Your task to perform on an android device: open app "Microsoft Outlook" Image 0: 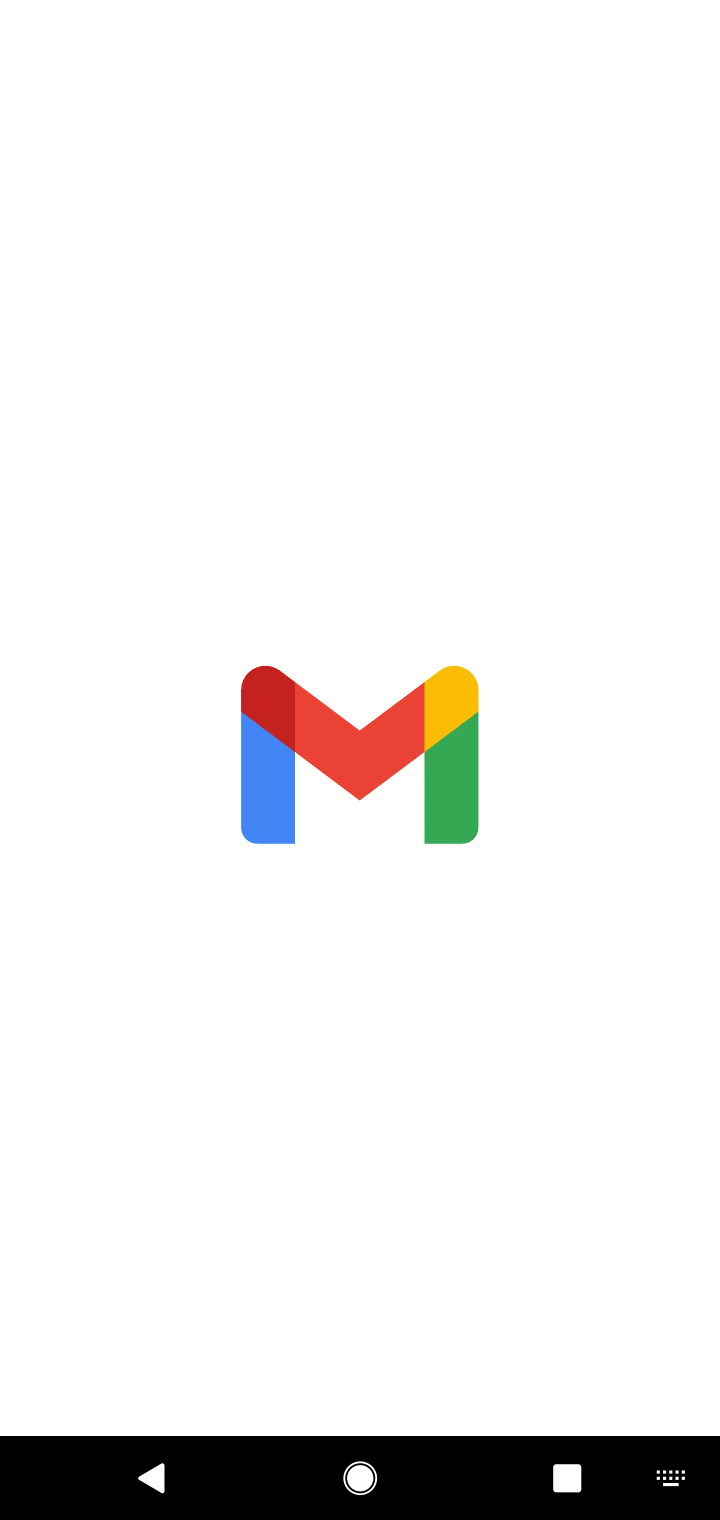
Step 0: press home button
Your task to perform on an android device: open app "Microsoft Outlook" Image 1: 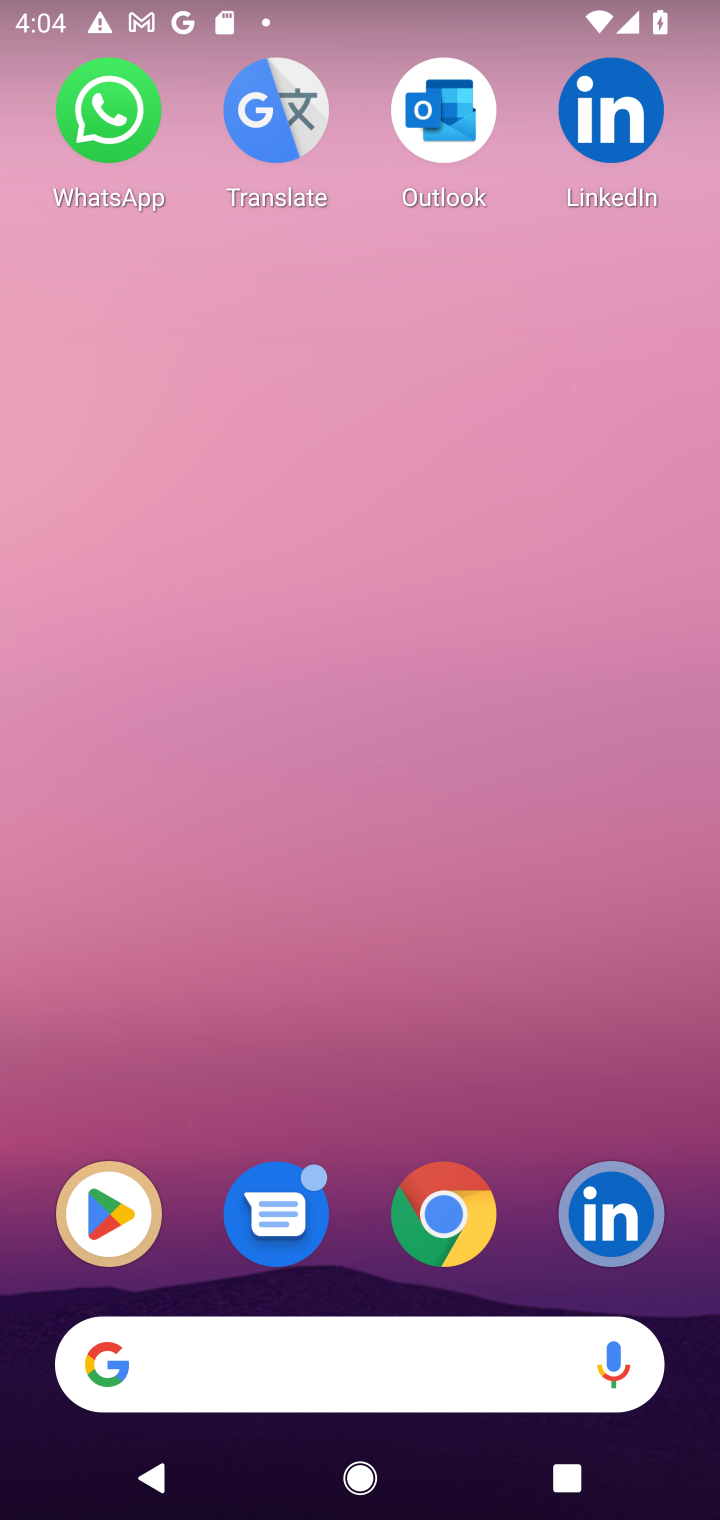
Step 1: click (125, 1192)
Your task to perform on an android device: open app "Microsoft Outlook" Image 2: 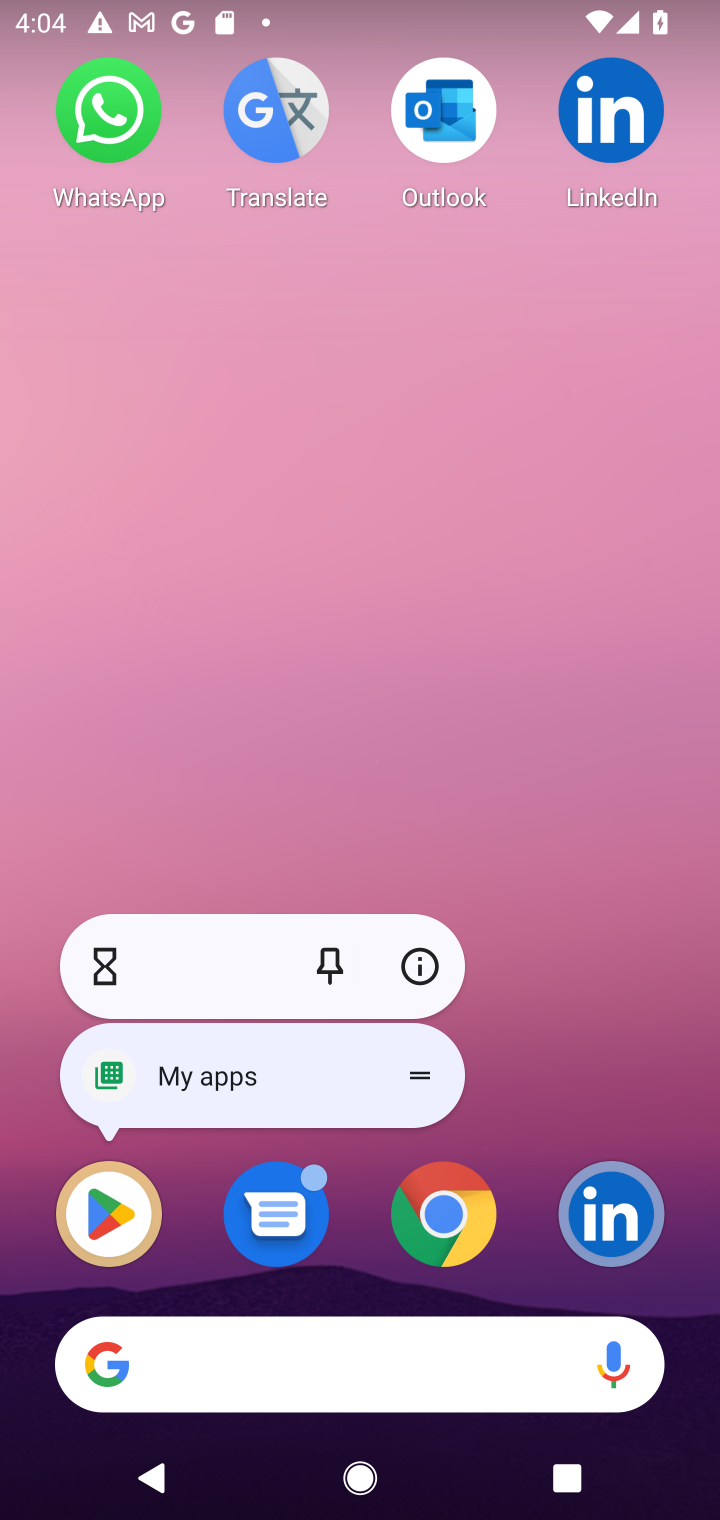
Step 2: click (106, 1227)
Your task to perform on an android device: open app "Microsoft Outlook" Image 3: 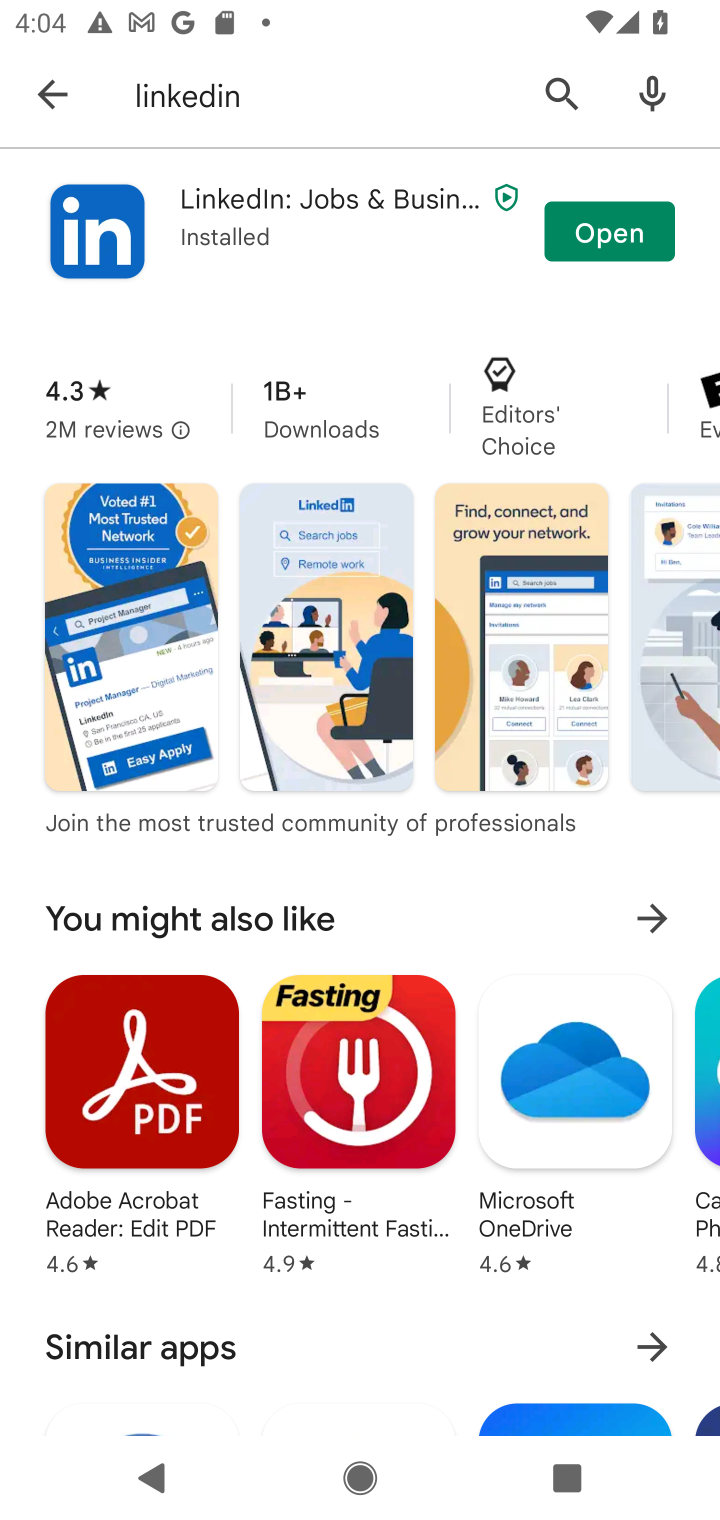
Step 3: click (251, 117)
Your task to perform on an android device: open app "Microsoft Outlook" Image 4: 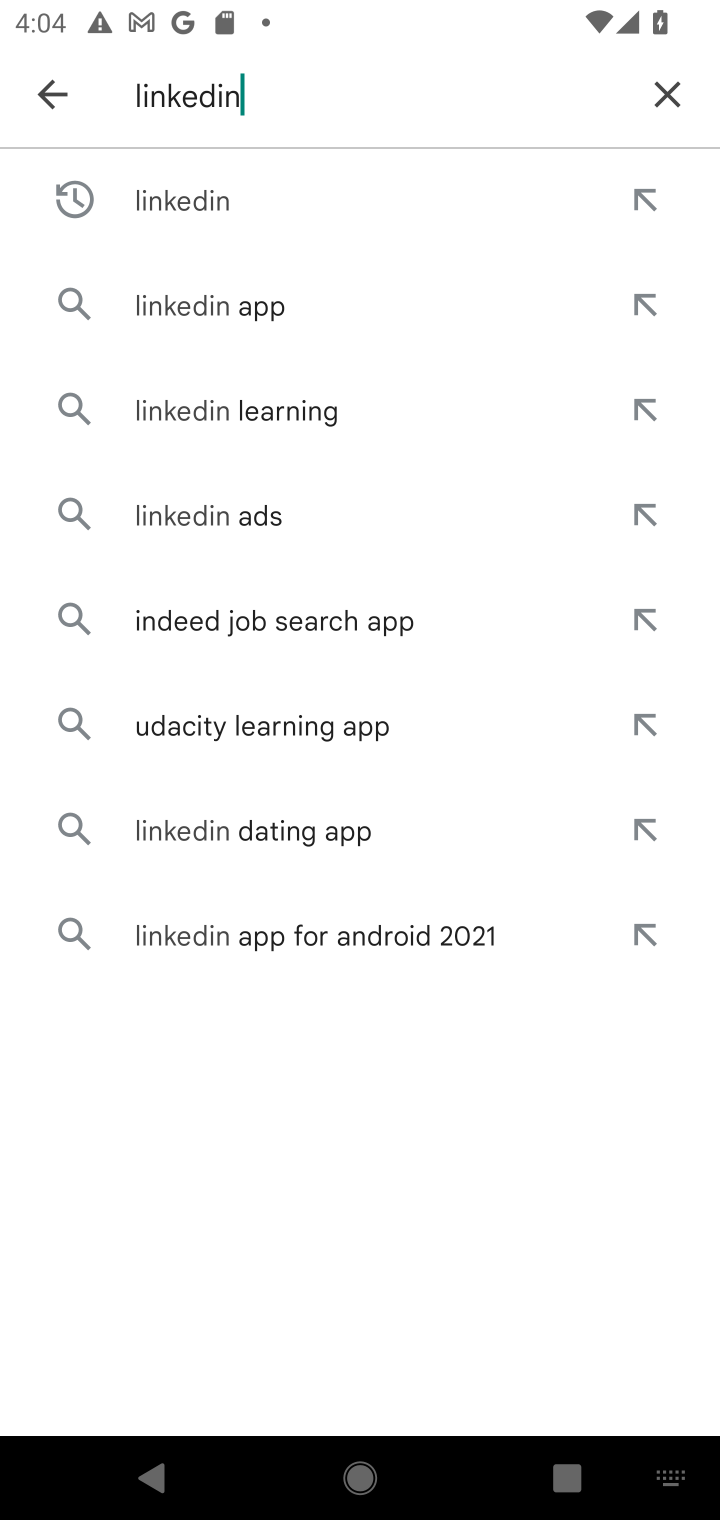
Step 4: click (653, 95)
Your task to perform on an android device: open app "Microsoft Outlook" Image 5: 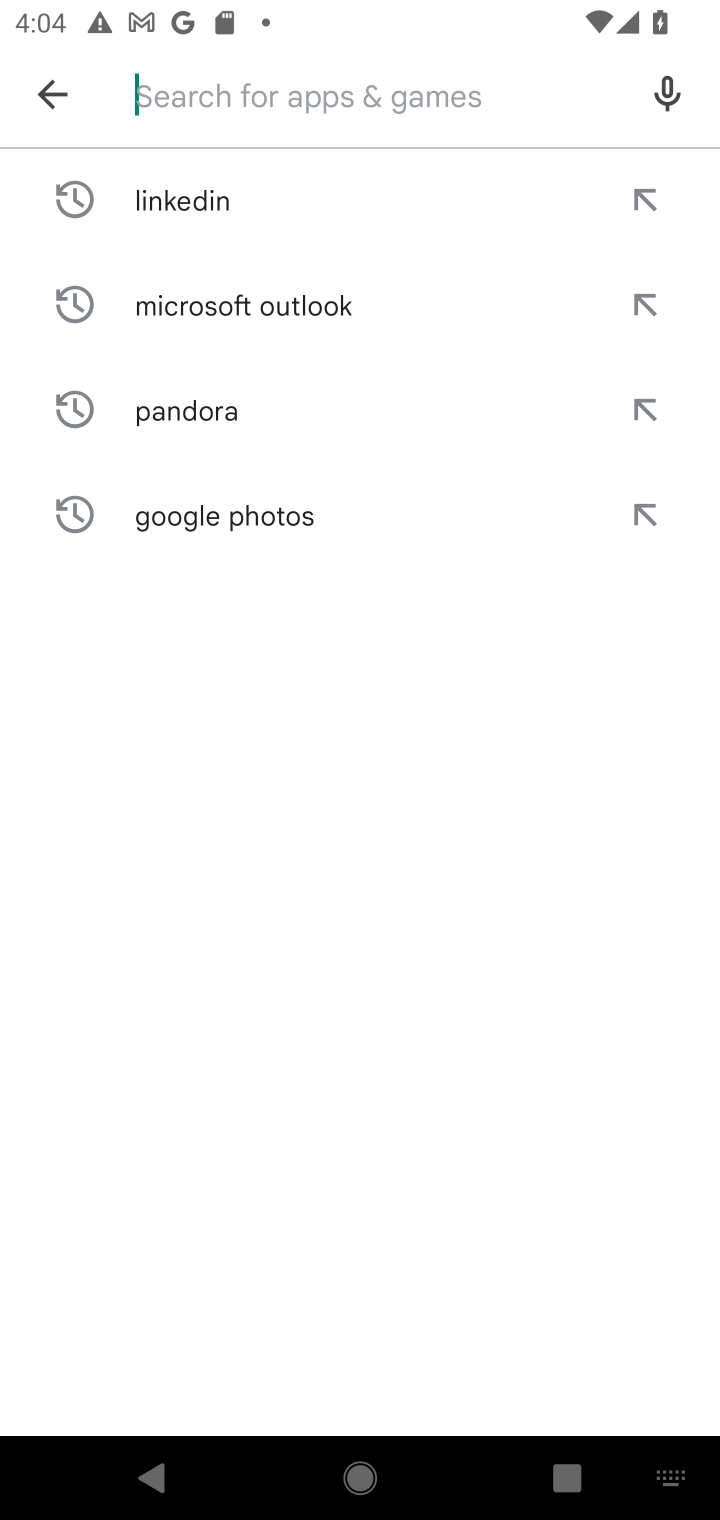
Step 5: type "microsoft Outlook"
Your task to perform on an android device: open app "Microsoft Outlook" Image 6: 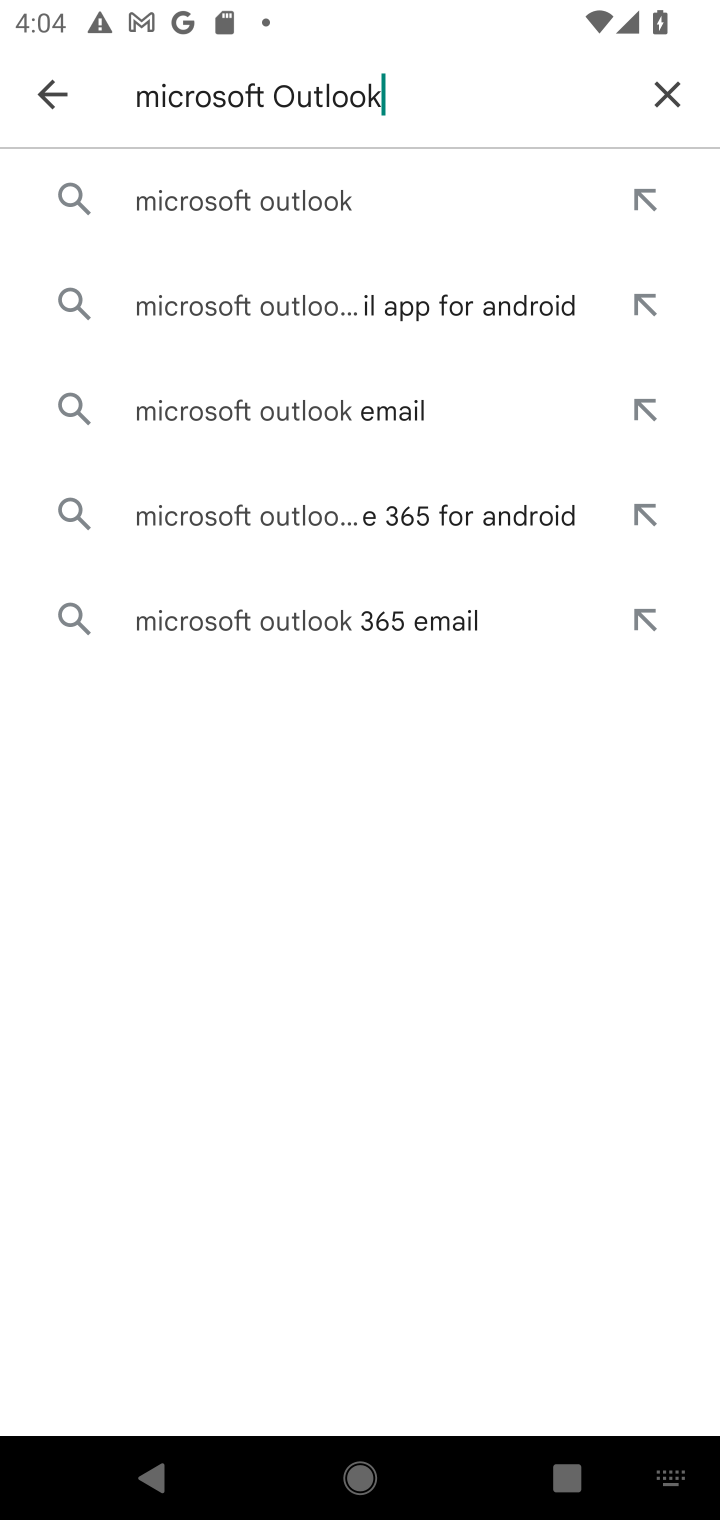
Step 6: click (281, 215)
Your task to perform on an android device: open app "Microsoft Outlook" Image 7: 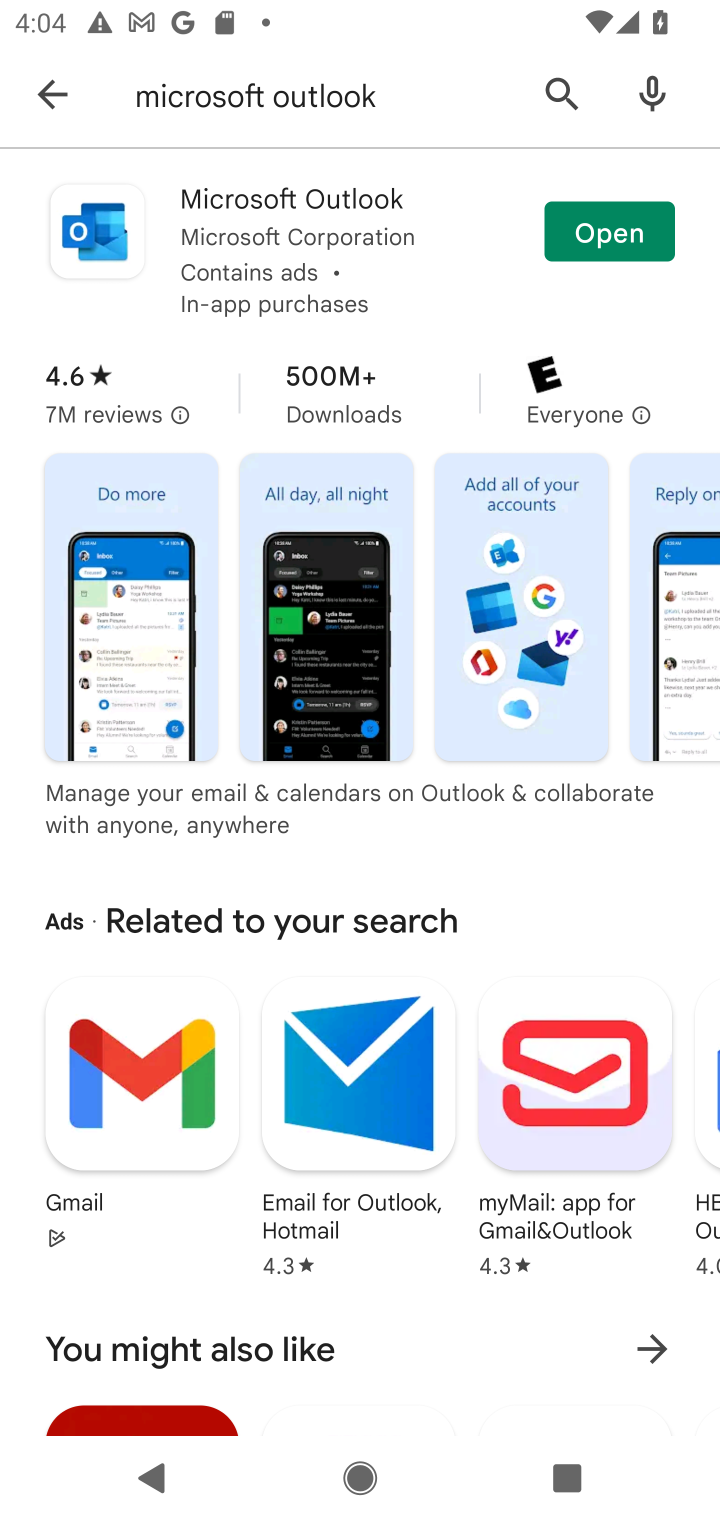
Step 7: click (579, 225)
Your task to perform on an android device: open app "Microsoft Outlook" Image 8: 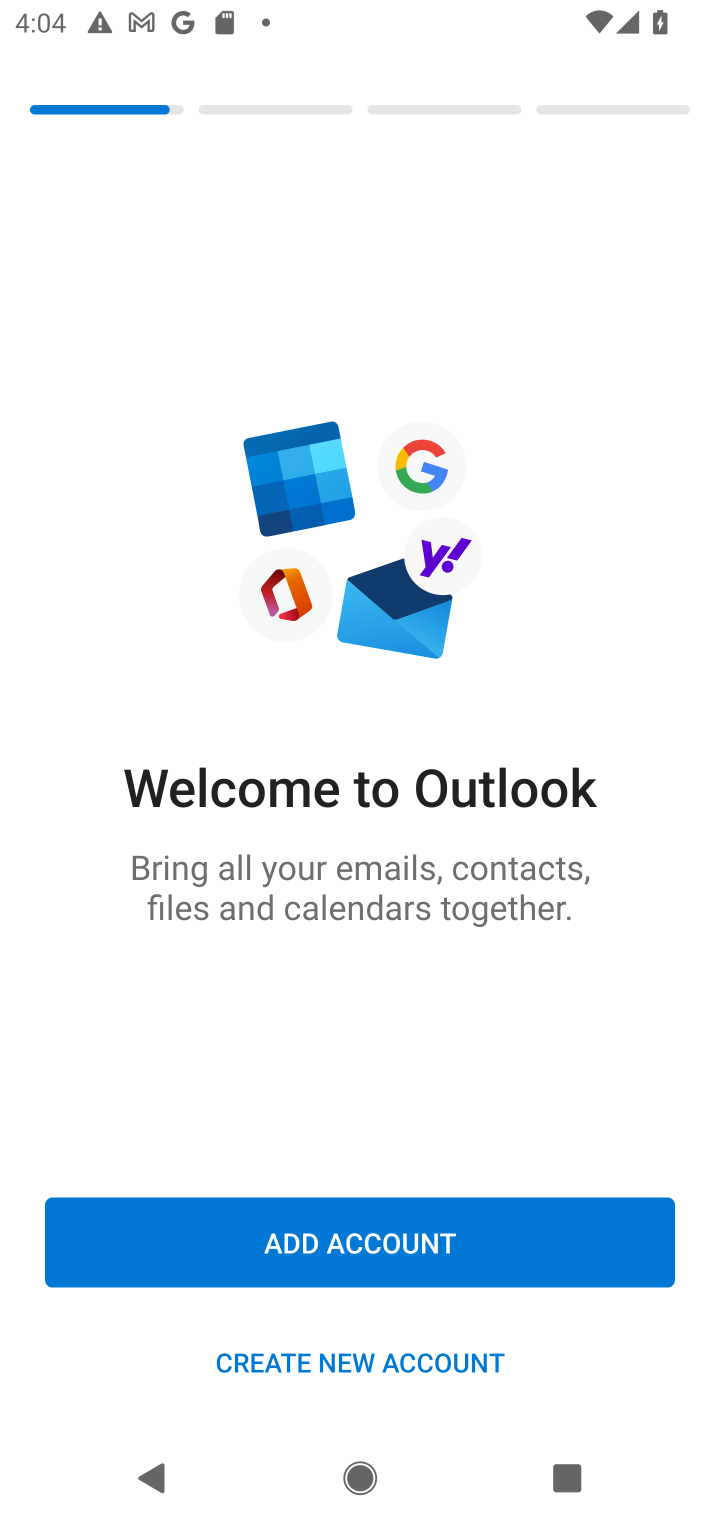
Step 8: task complete